Your task to perform on an android device: change the clock display to digital Image 0: 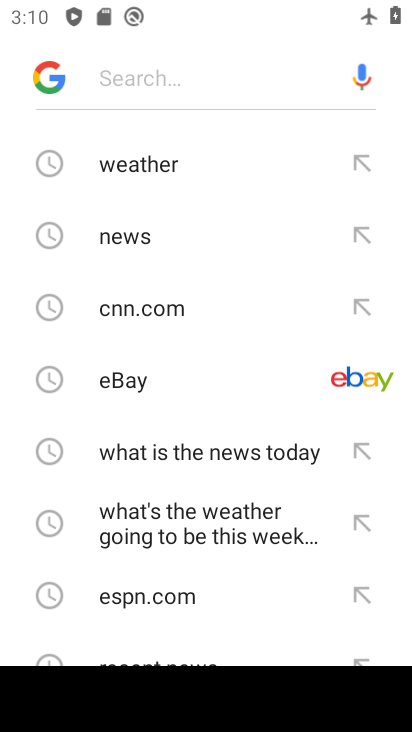
Step 0: press home button
Your task to perform on an android device: change the clock display to digital Image 1: 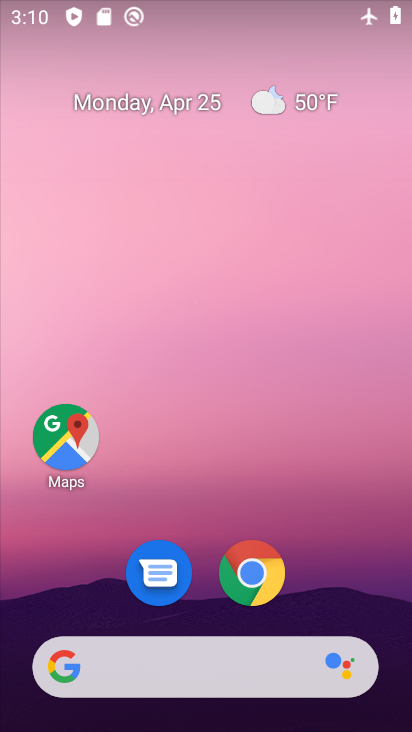
Step 1: drag from (353, 499) to (411, 665)
Your task to perform on an android device: change the clock display to digital Image 2: 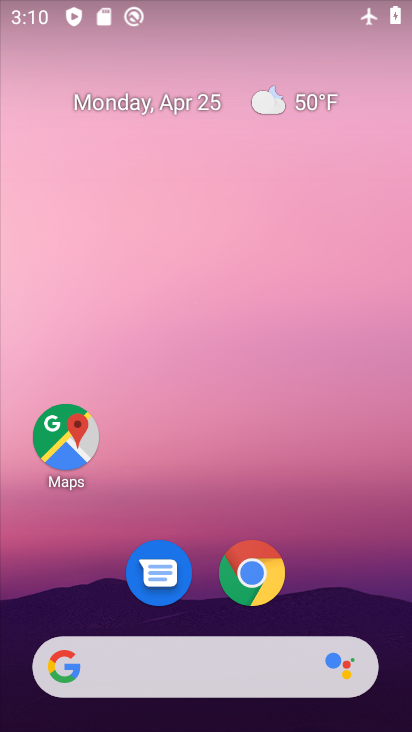
Step 2: drag from (347, 569) to (346, 69)
Your task to perform on an android device: change the clock display to digital Image 3: 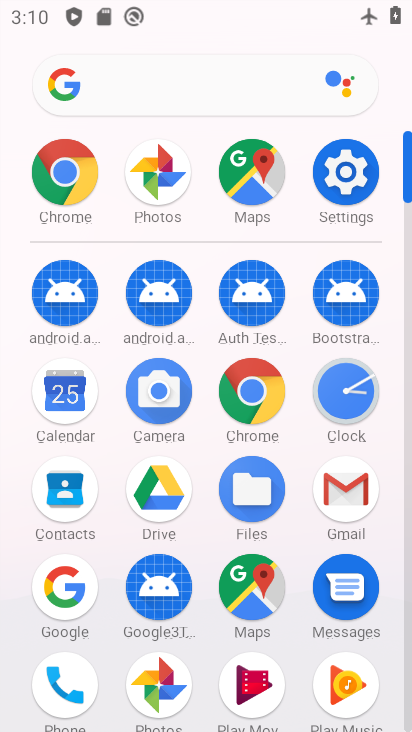
Step 3: click (351, 397)
Your task to perform on an android device: change the clock display to digital Image 4: 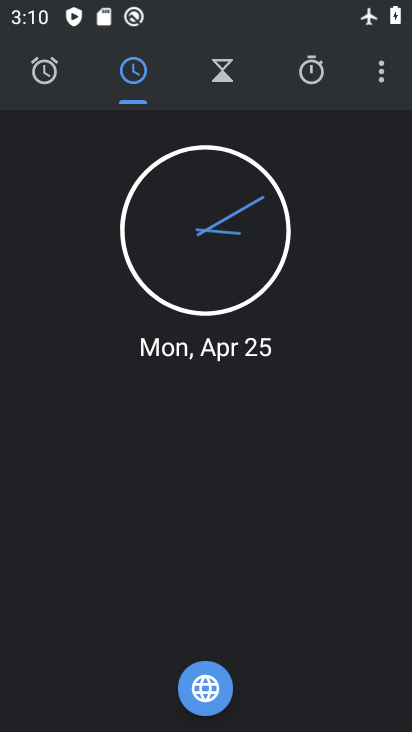
Step 4: click (379, 74)
Your task to perform on an android device: change the clock display to digital Image 5: 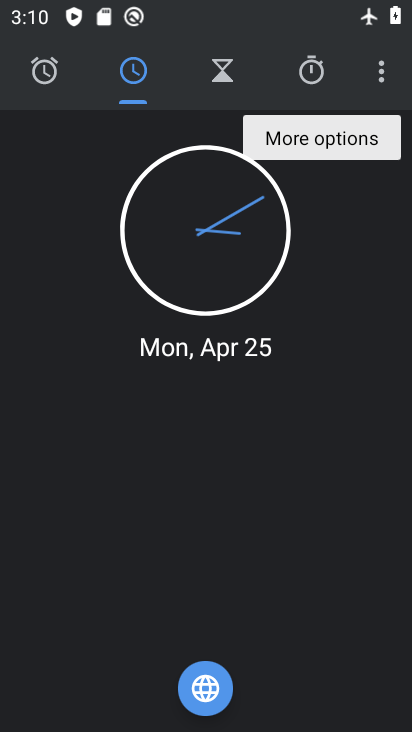
Step 5: click (383, 67)
Your task to perform on an android device: change the clock display to digital Image 6: 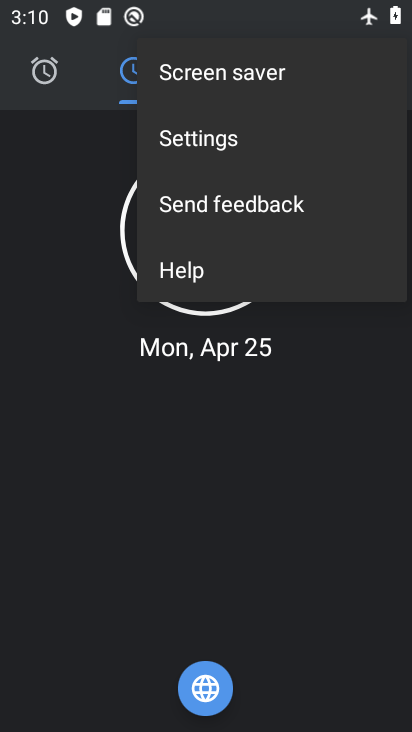
Step 6: click (182, 140)
Your task to perform on an android device: change the clock display to digital Image 7: 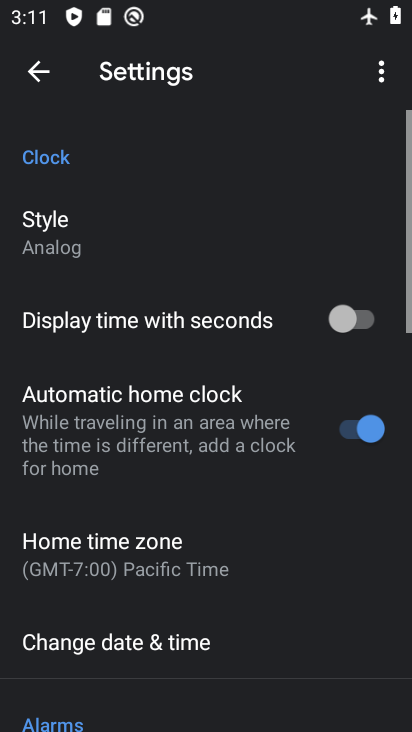
Step 7: click (51, 246)
Your task to perform on an android device: change the clock display to digital Image 8: 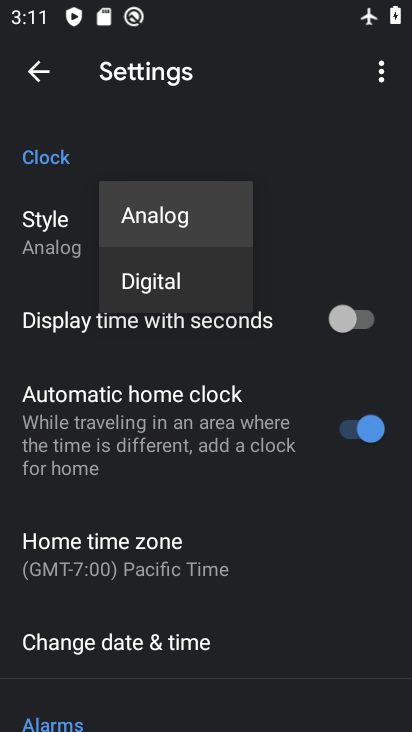
Step 8: click (137, 293)
Your task to perform on an android device: change the clock display to digital Image 9: 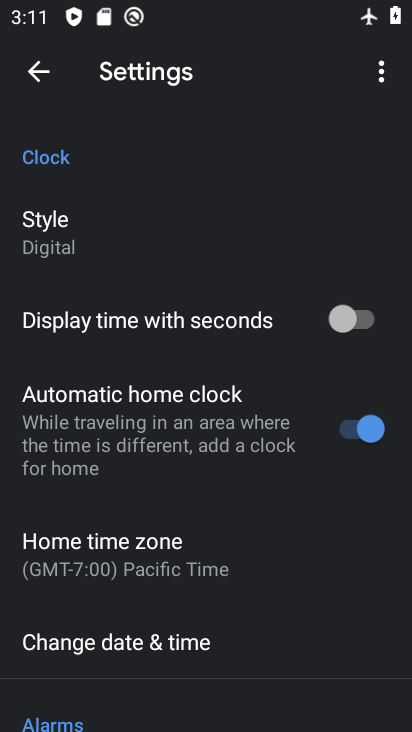
Step 9: task complete